Your task to perform on an android device: See recent photos Image 0: 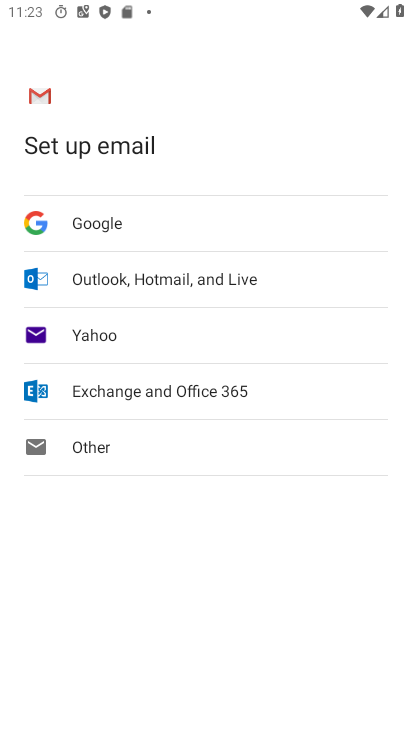
Step 0: press home button
Your task to perform on an android device: See recent photos Image 1: 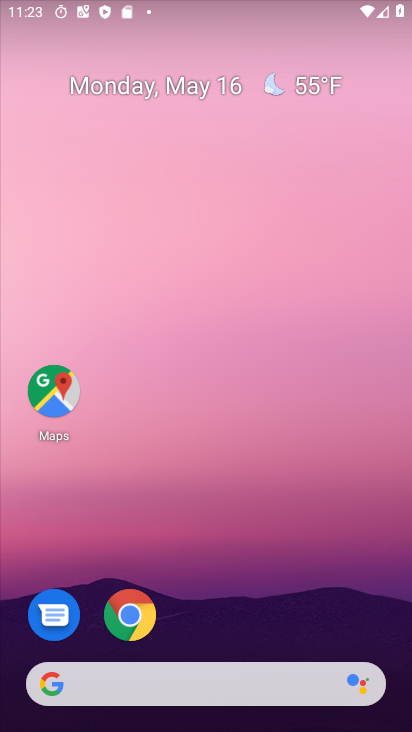
Step 1: drag from (264, 599) to (360, 106)
Your task to perform on an android device: See recent photos Image 2: 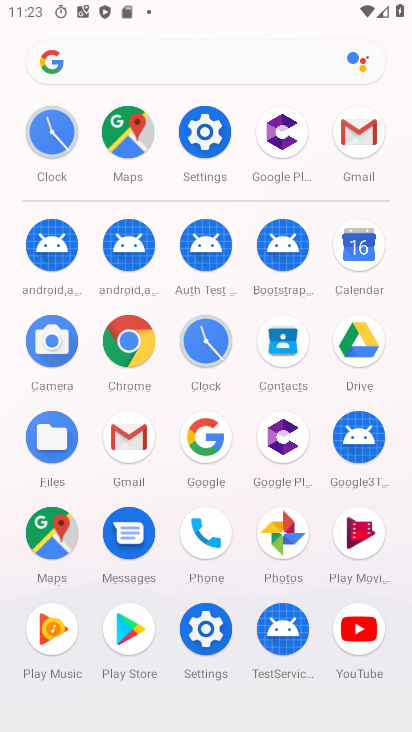
Step 2: click (263, 541)
Your task to perform on an android device: See recent photos Image 3: 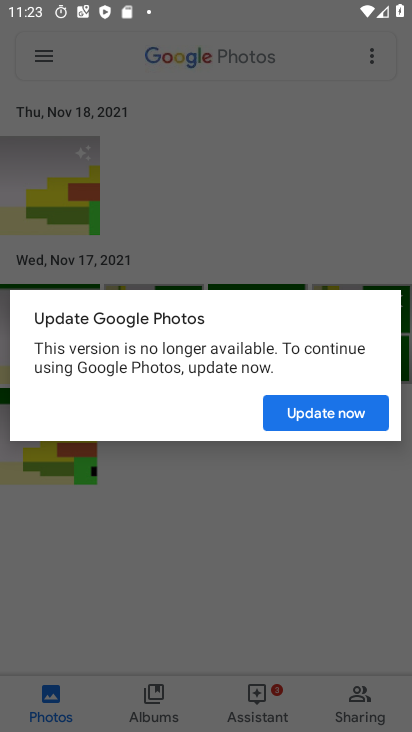
Step 3: click (326, 419)
Your task to perform on an android device: See recent photos Image 4: 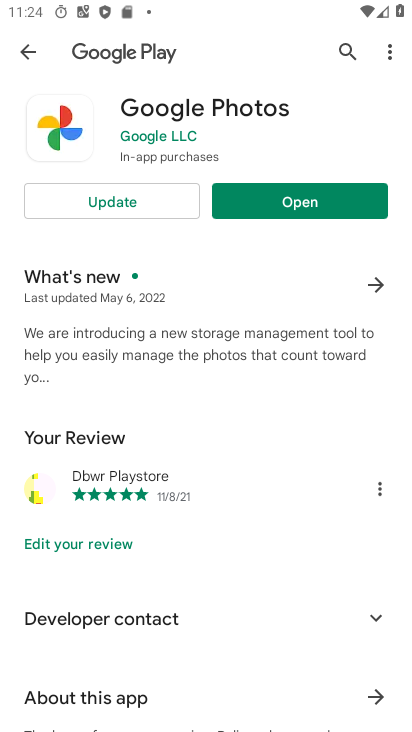
Step 4: click (86, 213)
Your task to perform on an android device: See recent photos Image 5: 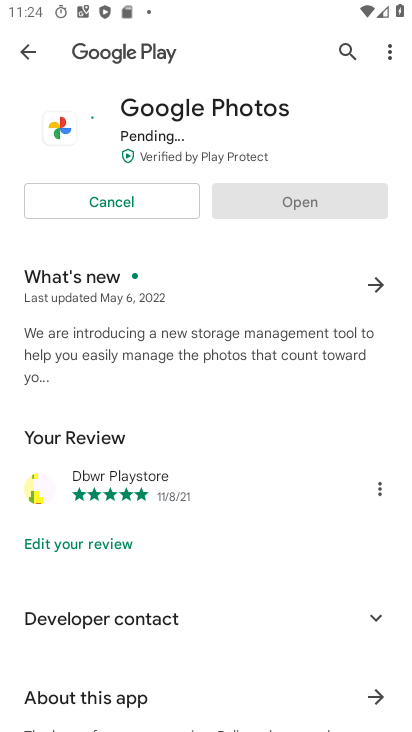
Step 5: drag from (244, 585) to (290, 726)
Your task to perform on an android device: See recent photos Image 6: 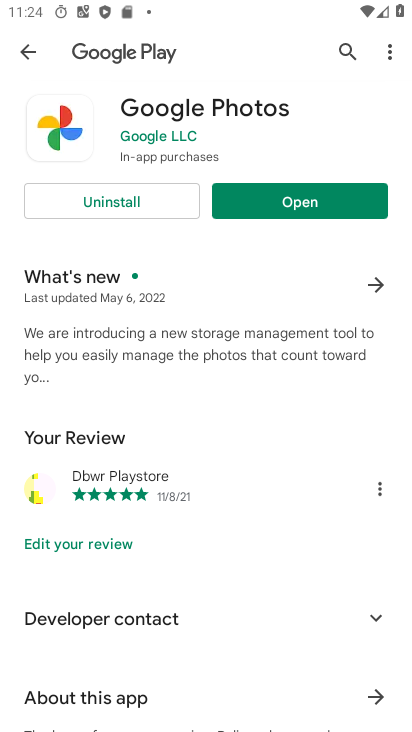
Step 6: drag from (252, 232) to (340, 730)
Your task to perform on an android device: See recent photos Image 7: 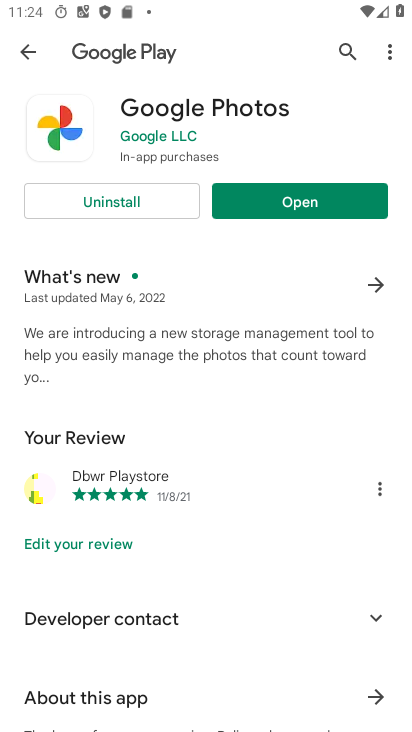
Step 7: drag from (261, 234) to (297, 494)
Your task to perform on an android device: See recent photos Image 8: 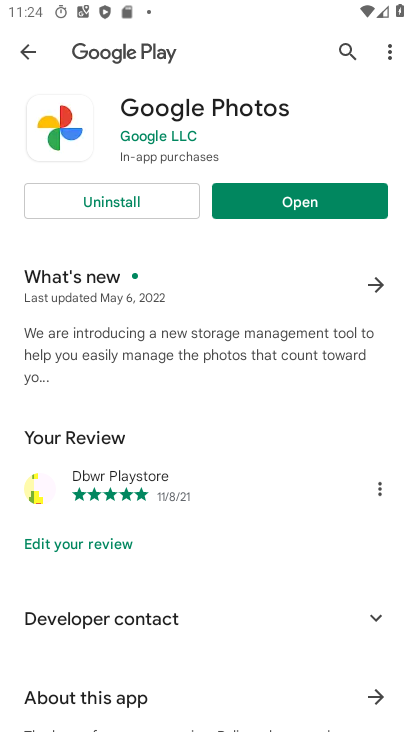
Step 8: click (296, 214)
Your task to perform on an android device: See recent photos Image 9: 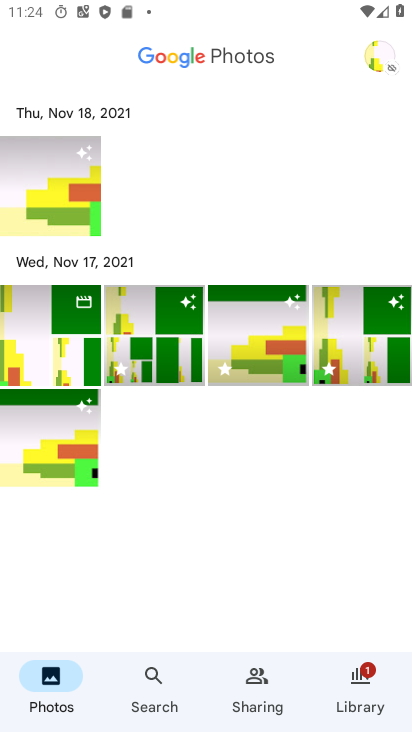
Step 9: task complete